Your task to perform on an android device: allow notifications from all sites in the chrome app Image 0: 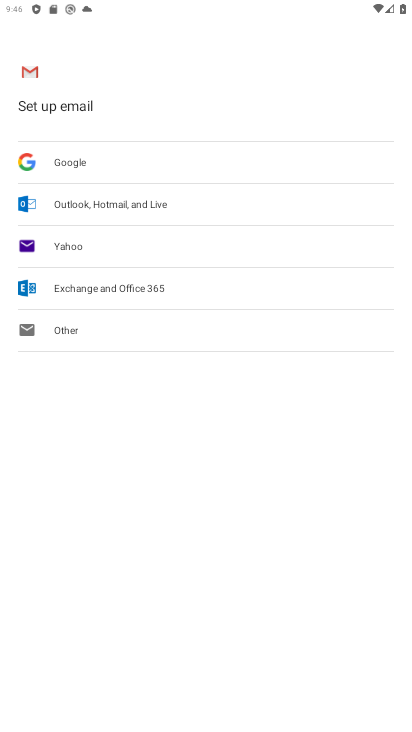
Step 0: press home button
Your task to perform on an android device: allow notifications from all sites in the chrome app Image 1: 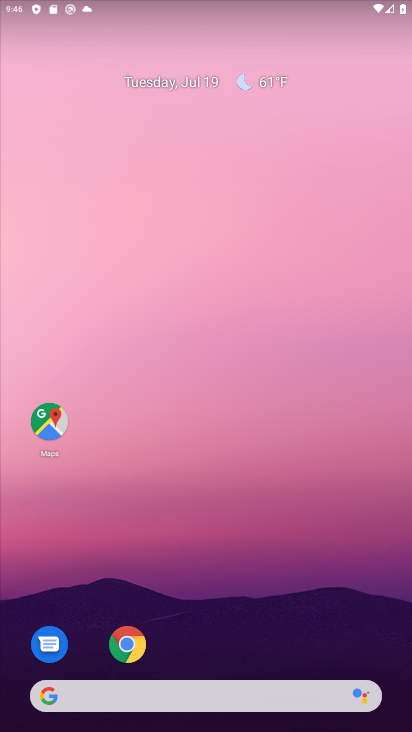
Step 1: drag from (266, 607) to (280, 205)
Your task to perform on an android device: allow notifications from all sites in the chrome app Image 2: 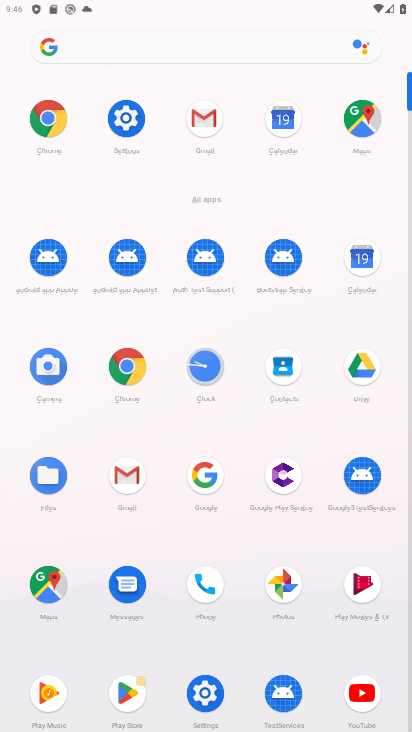
Step 2: click (115, 373)
Your task to perform on an android device: allow notifications from all sites in the chrome app Image 3: 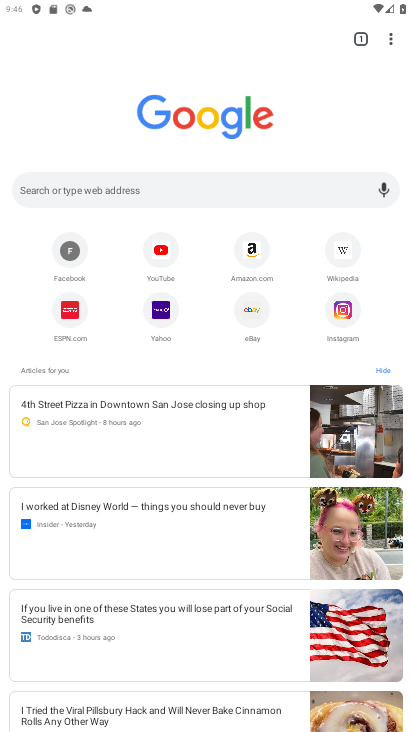
Step 3: click (392, 39)
Your task to perform on an android device: allow notifications from all sites in the chrome app Image 4: 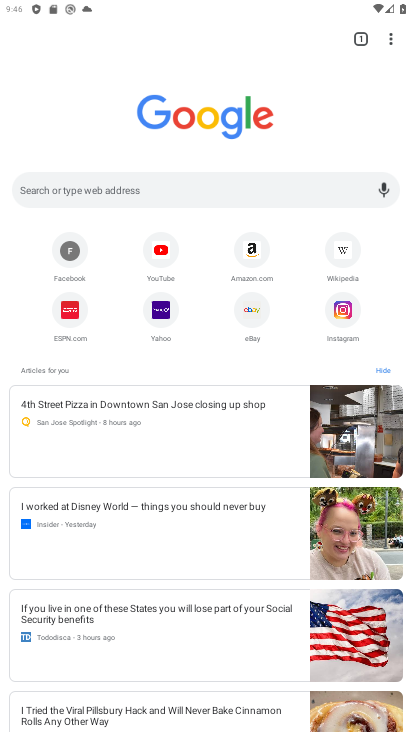
Step 4: click (392, 39)
Your task to perform on an android device: allow notifications from all sites in the chrome app Image 5: 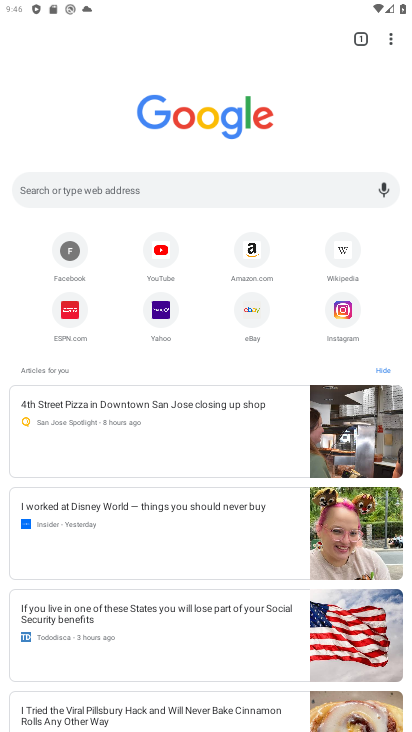
Step 5: click (389, 41)
Your task to perform on an android device: allow notifications from all sites in the chrome app Image 6: 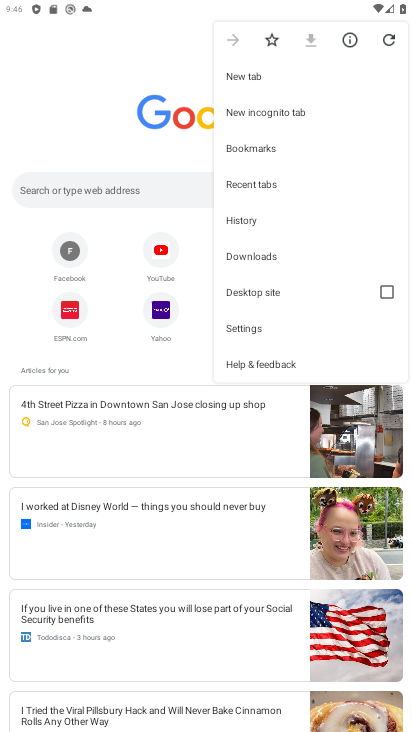
Step 6: click (258, 332)
Your task to perform on an android device: allow notifications from all sites in the chrome app Image 7: 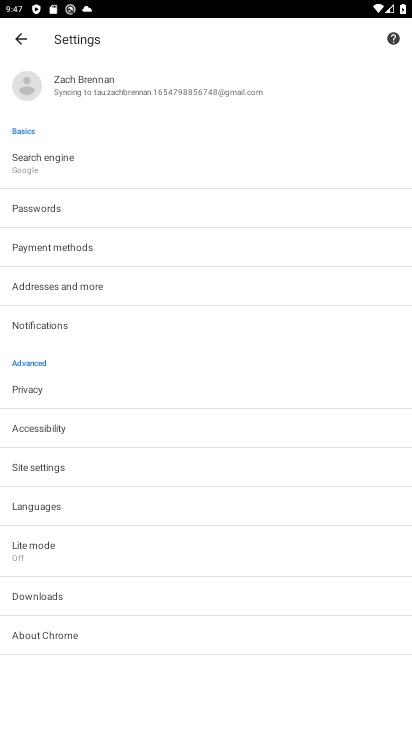
Step 7: click (52, 326)
Your task to perform on an android device: allow notifications from all sites in the chrome app Image 8: 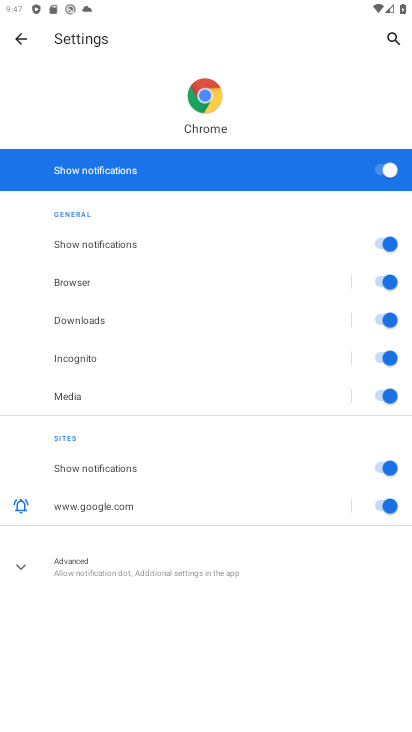
Step 8: task complete